Your task to perform on an android device: turn off improve location accuracy Image 0: 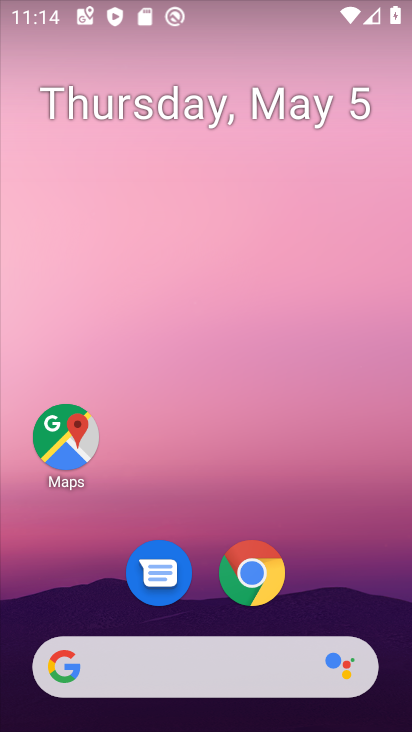
Step 0: drag from (344, 570) to (354, 289)
Your task to perform on an android device: turn off improve location accuracy Image 1: 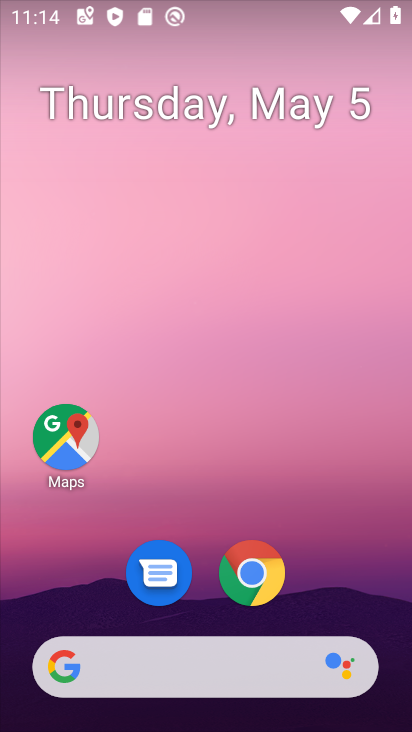
Step 1: drag from (330, 584) to (354, 253)
Your task to perform on an android device: turn off improve location accuracy Image 2: 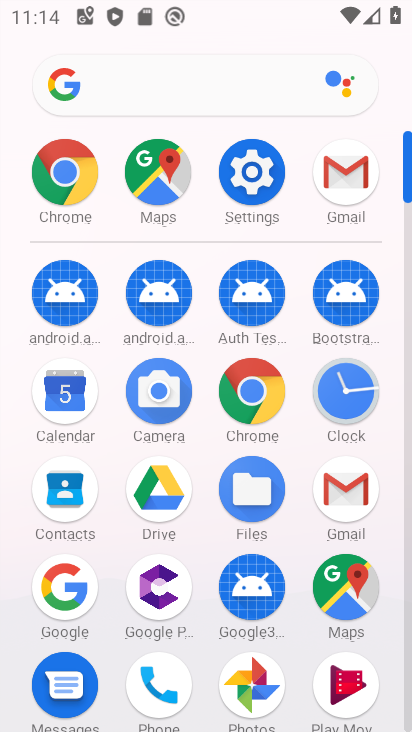
Step 2: click (242, 159)
Your task to perform on an android device: turn off improve location accuracy Image 3: 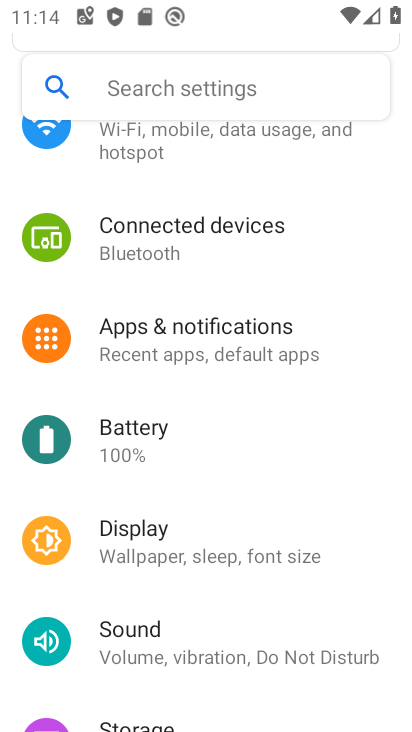
Step 3: drag from (248, 595) to (309, 250)
Your task to perform on an android device: turn off improve location accuracy Image 4: 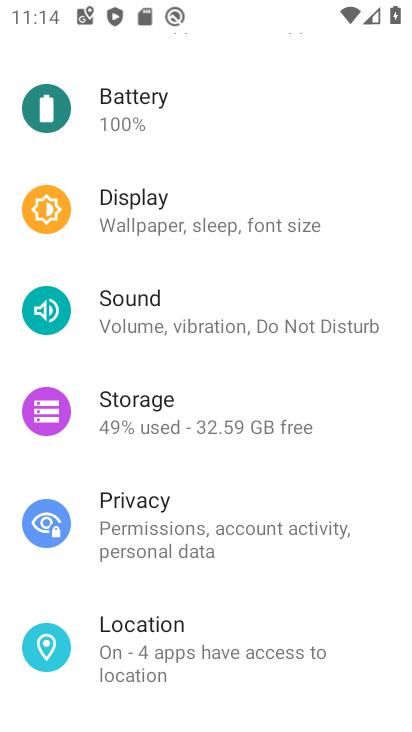
Step 4: drag from (209, 622) to (299, 256)
Your task to perform on an android device: turn off improve location accuracy Image 5: 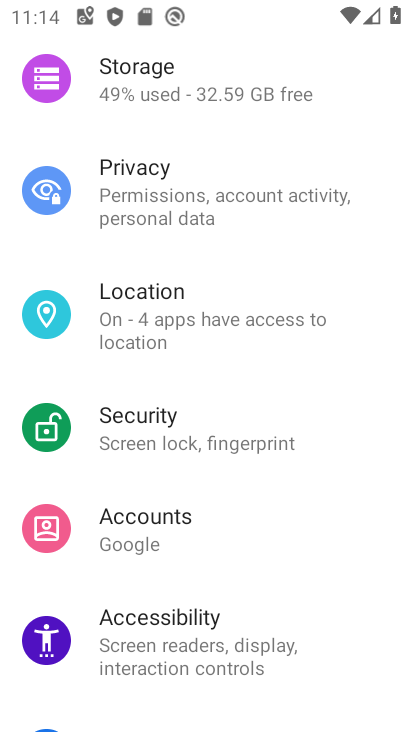
Step 5: click (170, 319)
Your task to perform on an android device: turn off improve location accuracy Image 6: 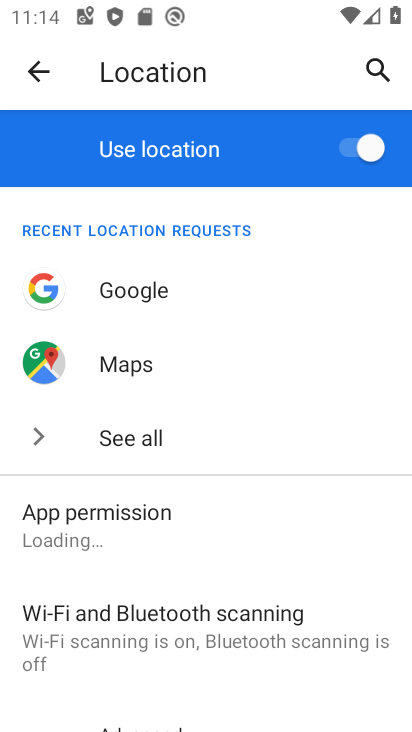
Step 6: click (170, 528)
Your task to perform on an android device: turn off improve location accuracy Image 7: 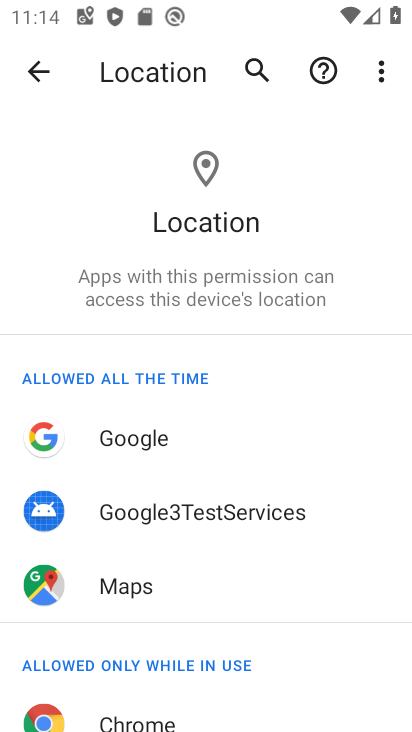
Step 7: drag from (272, 624) to (355, 166)
Your task to perform on an android device: turn off improve location accuracy Image 8: 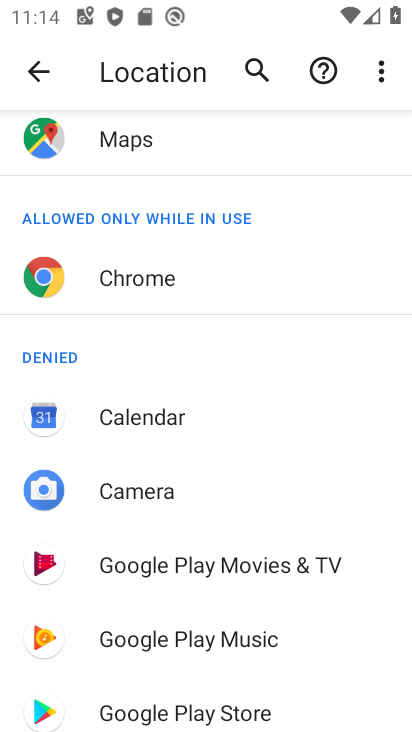
Step 8: click (39, 70)
Your task to perform on an android device: turn off improve location accuracy Image 9: 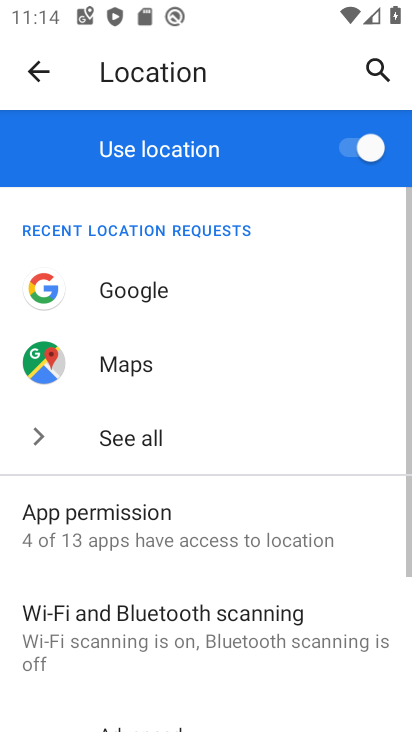
Step 9: drag from (200, 645) to (322, 262)
Your task to perform on an android device: turn off improve location accuracy Image 10: 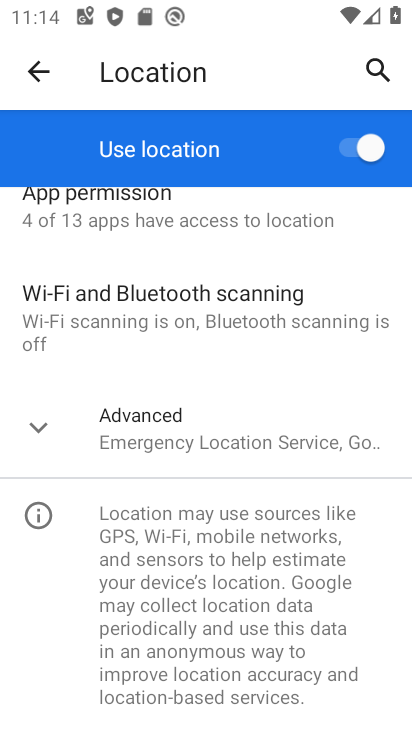
Step 10: click (195, 429)
Your task to perform on an android device: turn off improve location accuracy Image 11: 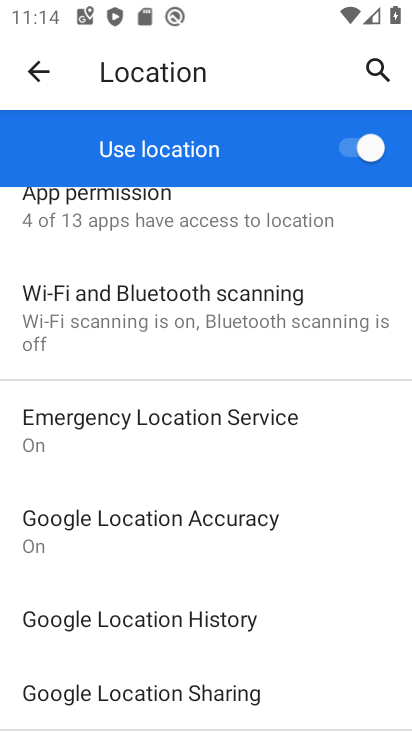
Step 11: drag from (206, 572) to (225, 506)
Your task to perform on an android device: turn off improve location accuracy Image 12: 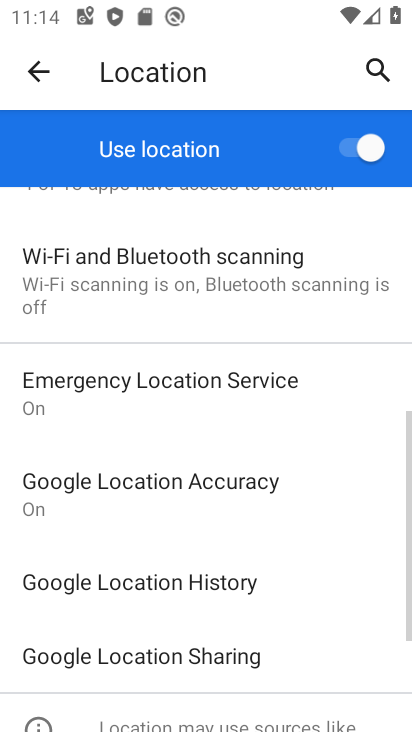
Step 12: click (215, 484)
Your task to perform on an android device: turn off improve location accuracy Image 13: 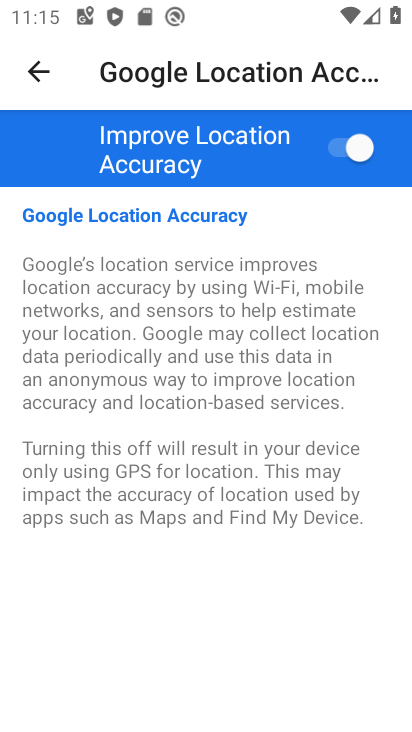
Step 13: click (333, 133)
Your task to perform on an android device: turn off improve location accuracy Image 14: 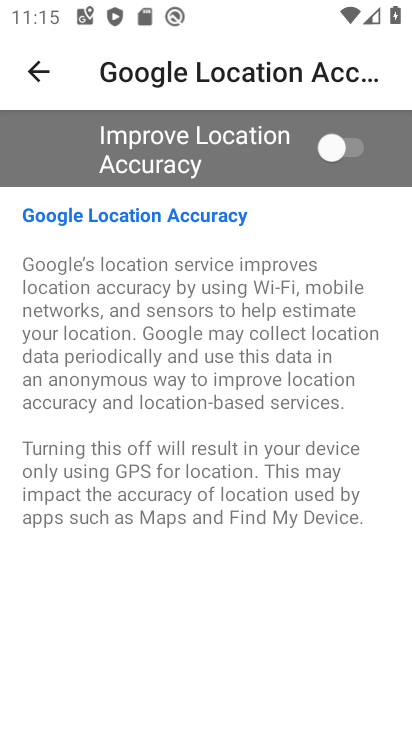
Step 14: task complete